Your task to perform on an android device: turn off priority inbox in the gmail app Image 0: 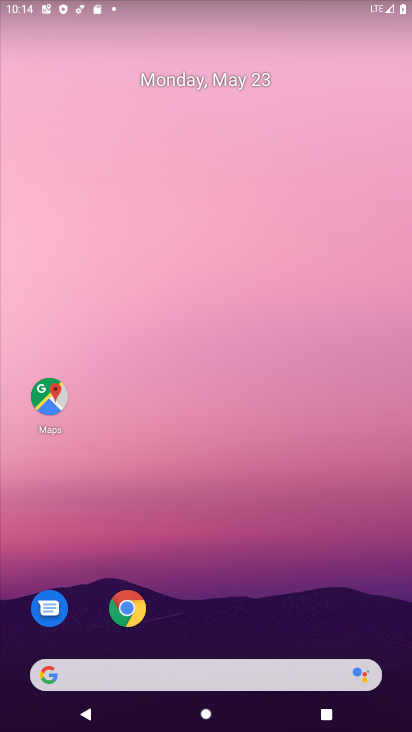
Step 0: drag from (163, 651) to (313, 136)
Your task to perform on an android device: turn off priority inbox in the gmail app Image 1: 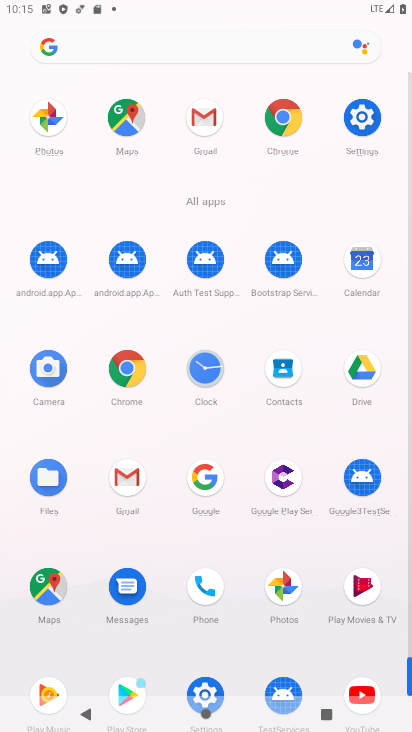
Step 1: click (128, 488)
Your task to perform on an android device: turn off priority inbox in the gmail app Image 2: 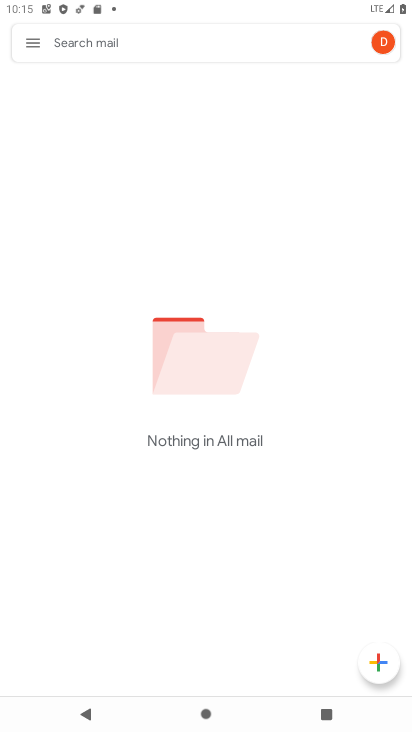
Step 2: click (44, 56)
Your task to perform on an android device: turn off priority inbox in the gmail app Image 3: 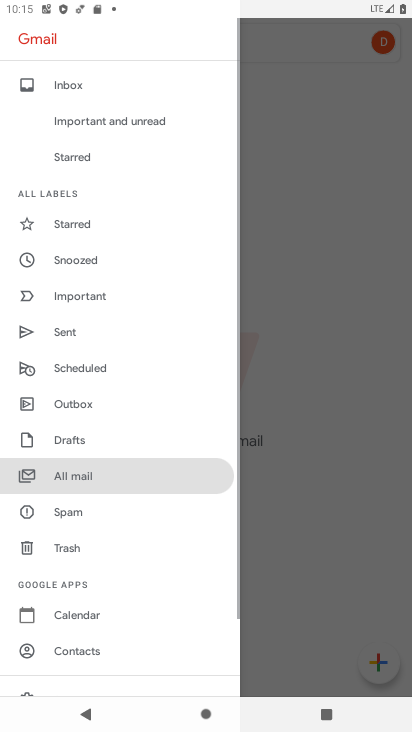
Step 3: drag from (53, 561) to (145, 184)
Your task to perform on an android device: turn off priority inbox in the gmail app Image 4: 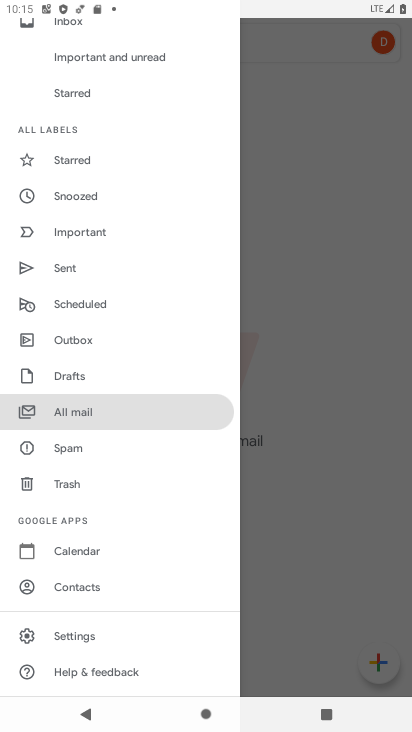
Step 4: click (105, 636)
Your task to perform on an android device: turn off priority inbox in the gmail app Image 5: 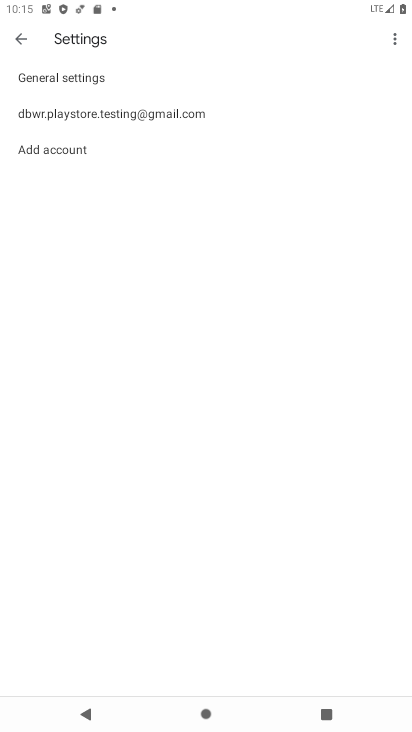
Step 5: click (210, 121)
Your task to perform on an android device: turn off priority inbox in the gmail app Image 6: 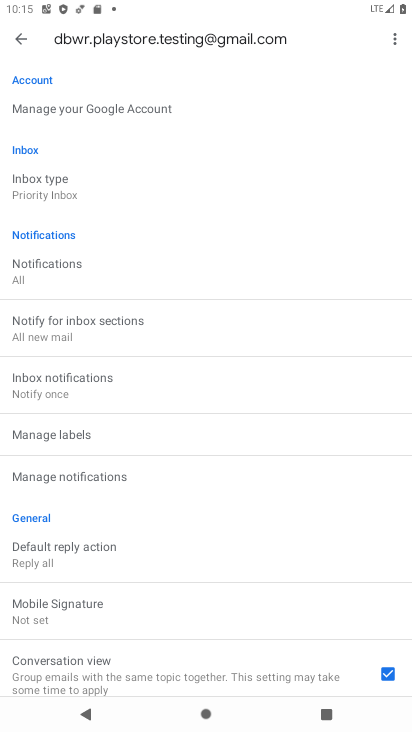
Step 6: drag from (182, 582) to (189, 623)
Your task to perform on an android device: turn off priority inbox in the gmail app Image 7: 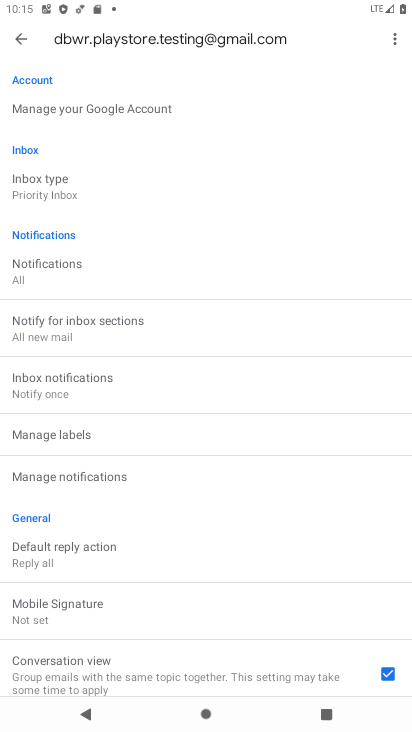
Step 7: click (121, 181)
Your task to perform on an android device: turn off priority inbox in the gmail app Image 8: 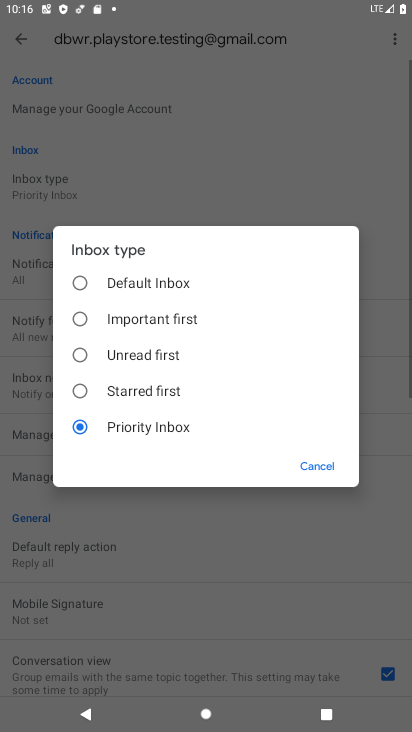
Step 8: click (169, 286)
Your task to perform on an android device: turn off priority inbox in the gmail app Image 9: 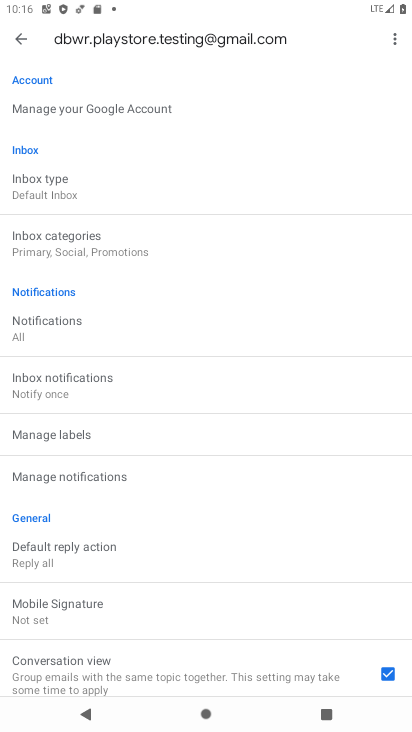
Step 9: task complete